Your task to perform on an android device: check android version Image 0: 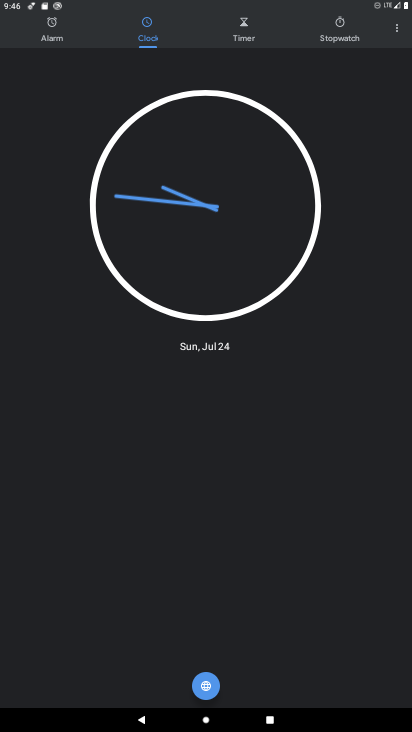
Step 0: press home button
Your task to perform on an android device: check android version Image 1: 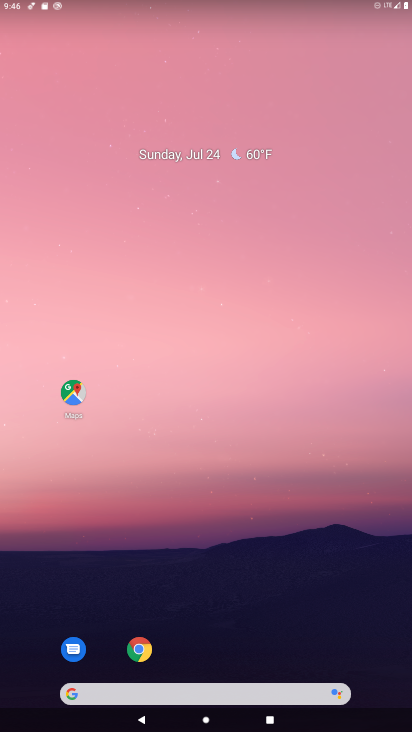
Step 1: drag from (271, 641) to (295, 143)
Your task to perform on an android device: check android version Image 2: 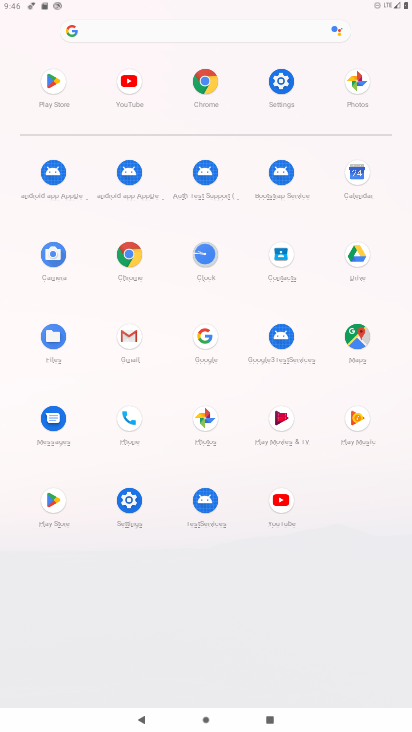
Step 2: click (290, 81)
Your task to perform on an android device: check android version Image 3: 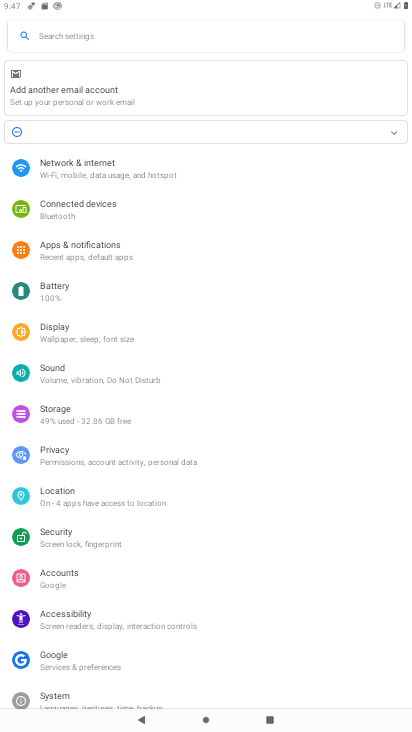
Step 3: drag from (317, 425) to (378, 200)
Your task to perform on an android device: check android version Image 4: 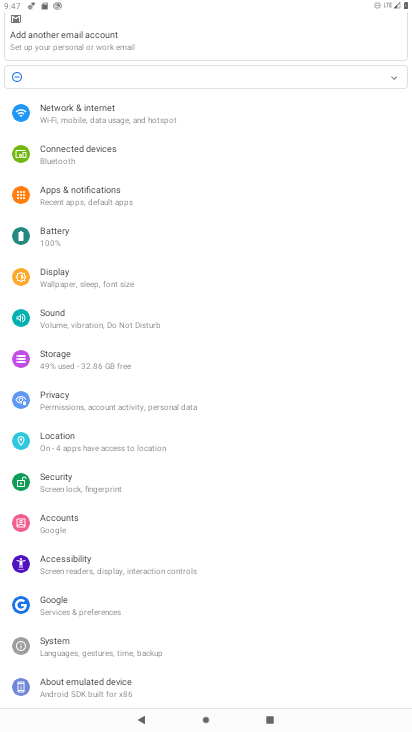
Step 4: click (77, 692)
Your task to perform on an android device: check android version Image 5: 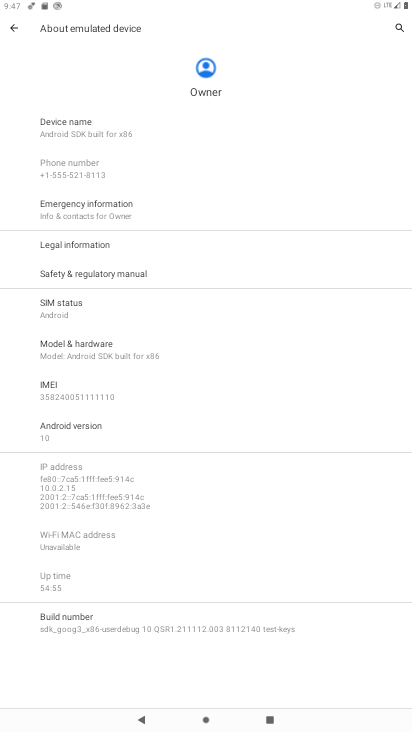
Step 5: drag from (261, 594) to (328, 256)
Your task to perform on an android device: check android version Image 6: 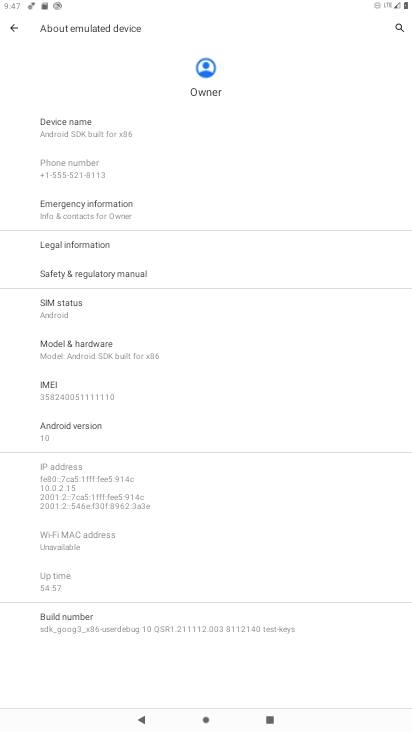
Step 6: click (67, 419)
Your task to perform on an android device: check android version Image 7: 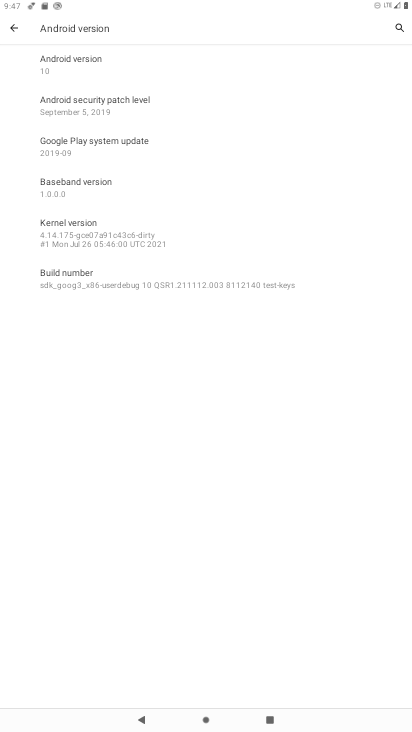
Step 7: click (79, 60)
Your task to perform on an android device: check android version Image 8: 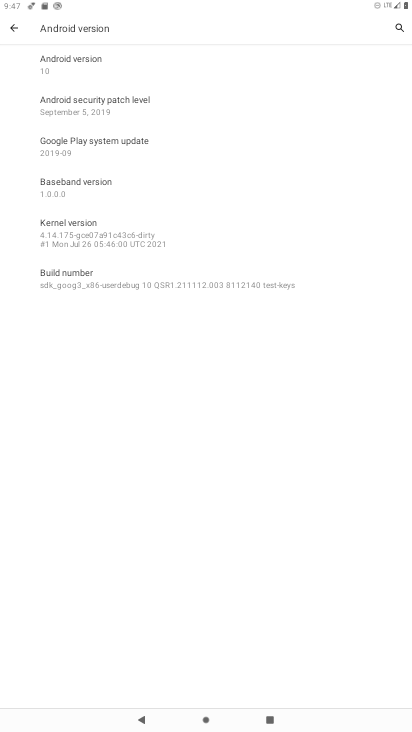
Step 8: task complete